Your task to perform on an android device: Go to calendar. Show me events next week Image 0: 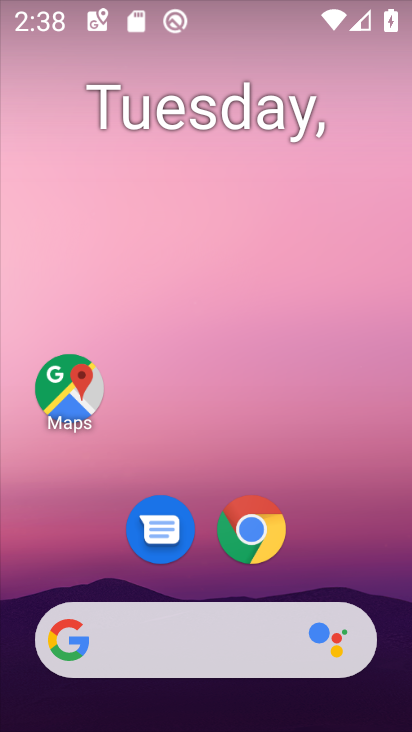
Step 0: drag from (297, 569) to (350, 217)
Your task to perform on an android device: Go to calendar. Show me events next week Image 1: 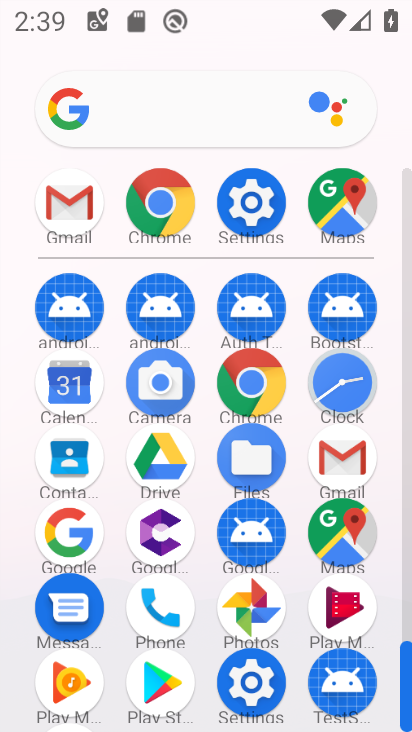
Step 1: click (74, 372)
Your task to perform on an android device: Go to calendar. Show me events next week Image 2: 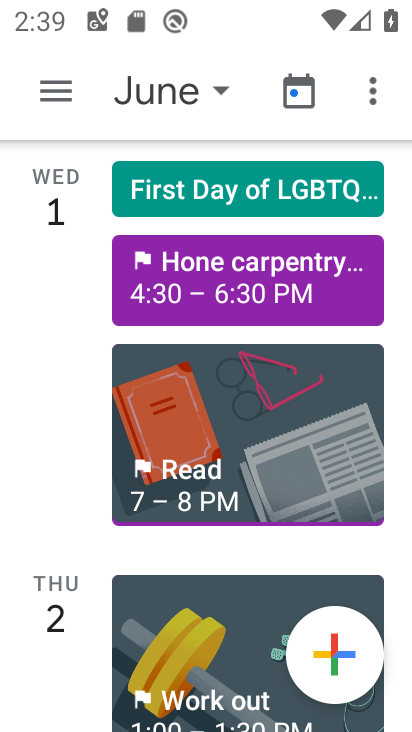
Step 2: click (68, 79)
Your task to perform on an android device: Go to calendar. Show me events next week Image 3: 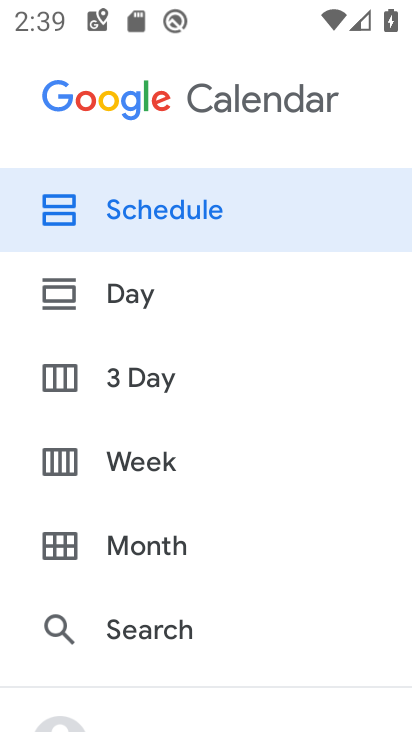
Step 3: click (136, 449)
Your task to perform on an android device: Go to calendar. Show me events next week Image 4: 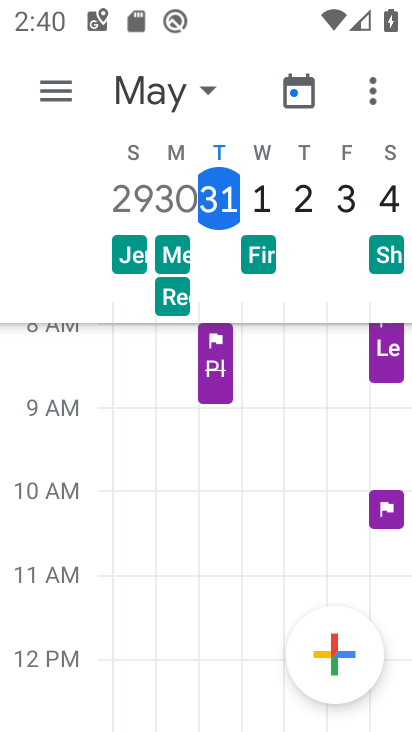
Step 4: task complete